Your task to perform on an android device: toggle data saver in the chrome app Image 0: 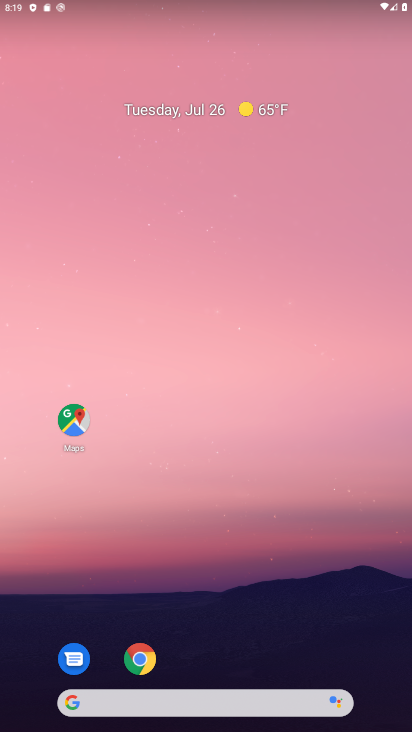
Step 0: click (134, 659)
Your task to perform on an android device: toggle data saver in the chrome app Image 1: 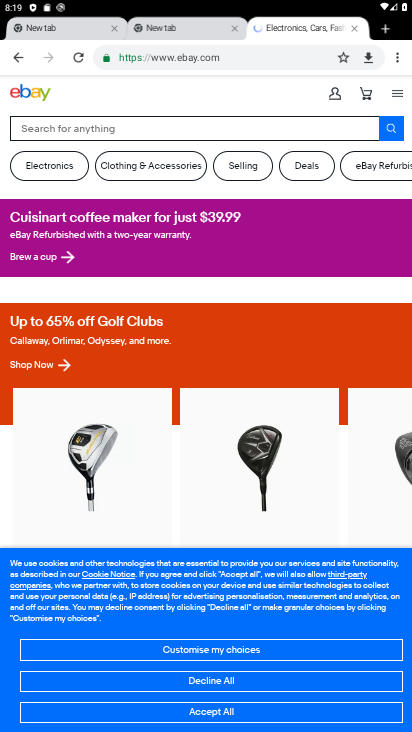
Step 1: click (396, 54)
Your task to perform on an android device: toggle data saver in the chrome app Image 2: 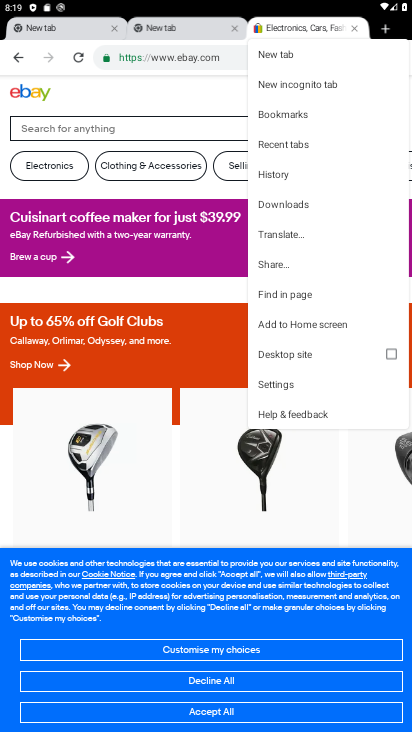
Step 2: click (263, 384)
Your task to perform on an android device: toggle data saver in the chrome app Image 3: 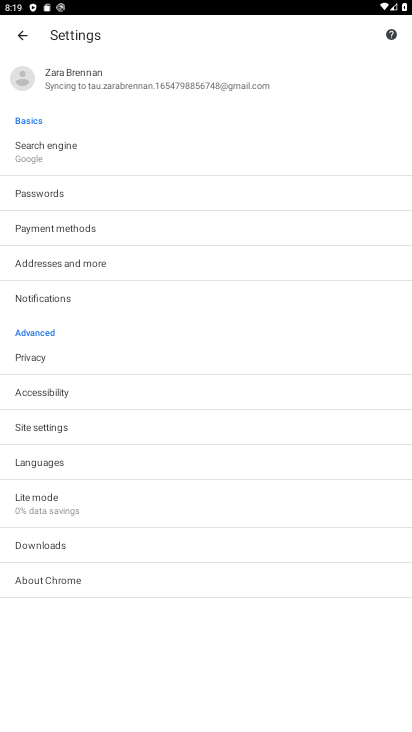
Step 3: click (29, 500)
Your task to perform on an android device: toggle data saver in the chrome app Image 4: 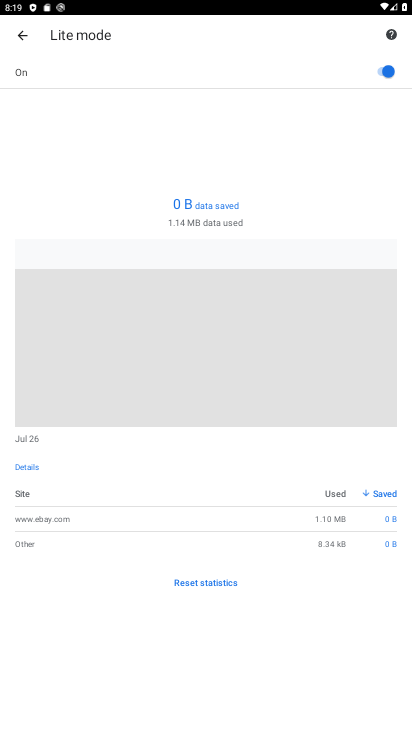
Step 4: click (379, 71)
Your task to perform on an android device: toggle data saver in the chrome app Image 5: 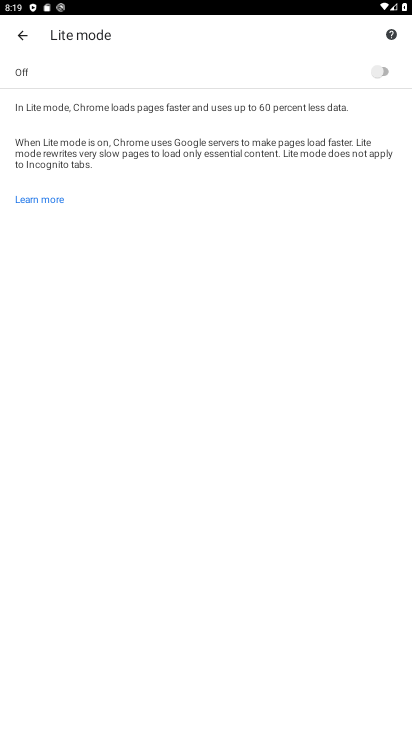
Step 5: task complete